Your task to perform on an android device: Search for 24"x36" picture frame on Home Depot. Image 0: 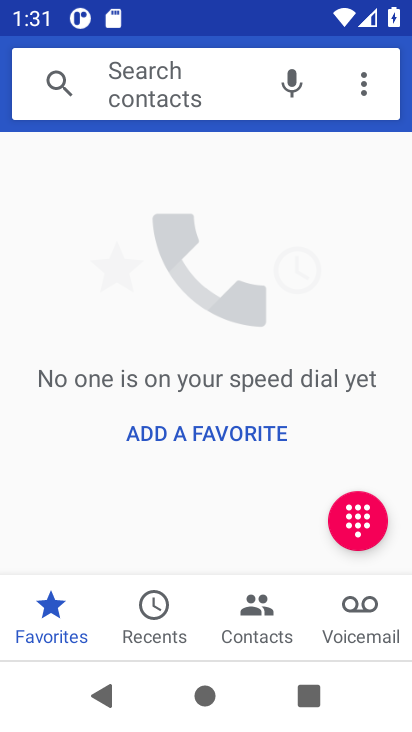
Step 0: press back button
Your task to perform on an android device: Search for 24"x36" picture frame on Home Depot. Image 1: 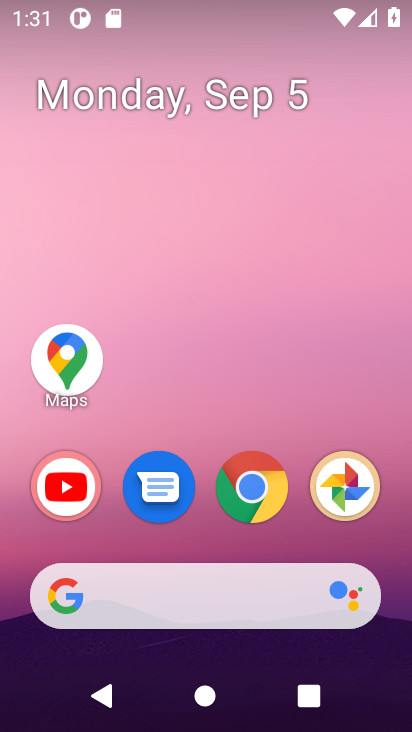
Step 1: click (129, 602)
Your task to perform on an android device: Search for 24"x36" picture frame on Home Depot. Image 2: 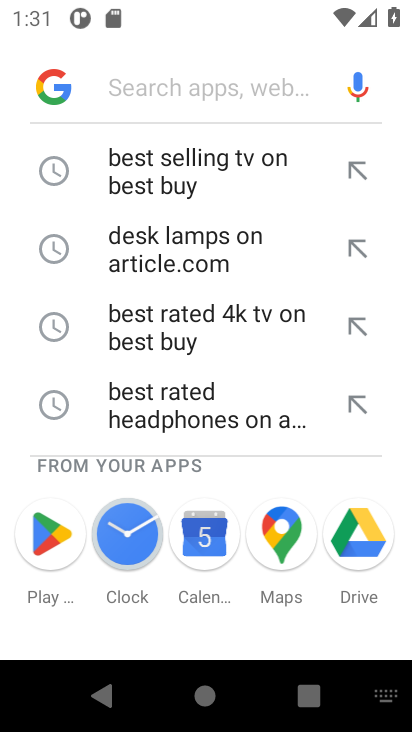
Step 2: press back button
Your task to perform on an android device: Search for 24"x36" picture frame on Home Depot. Image 3: 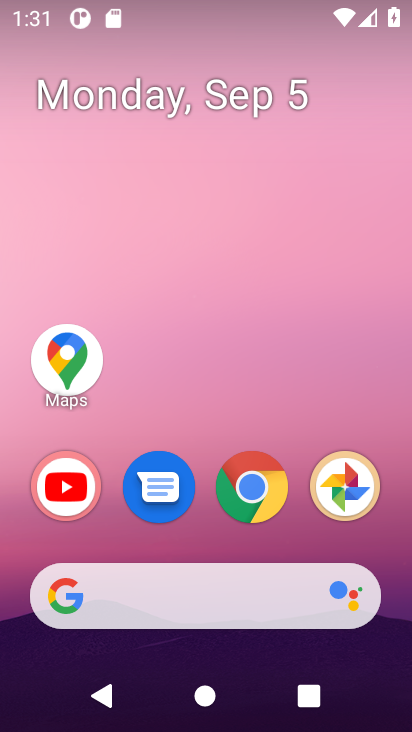
Step 3: click (238, 491)
Your task to perform on an android device: Search for 24"x36" picture frame on Home Depot. Image 4: 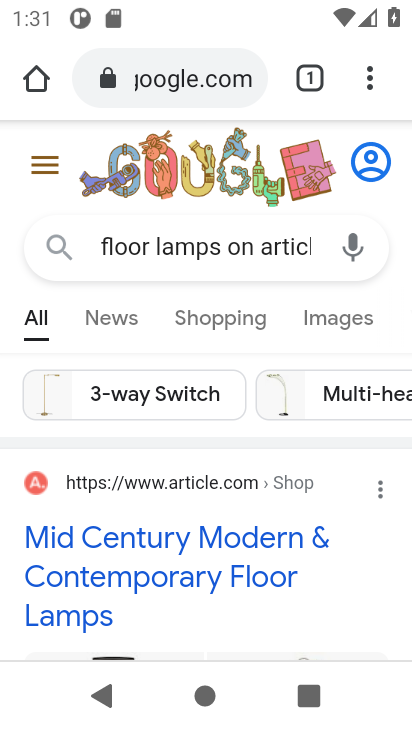
Step 4: click (176, 88)
Your task to perform on an android device: Search for 24"x36" picture frame on Home Depot. Image 5: 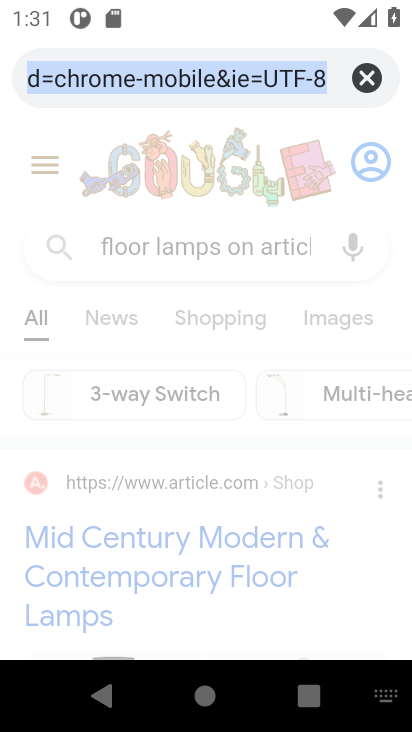
Step 5: click (368, 77)
Your task to perform on an android device: Search for 24"x36" picture frame on Home Depot. Image 6: 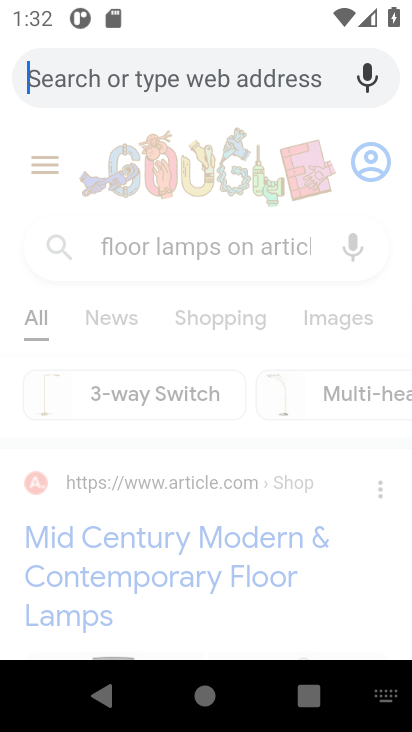
Step 6: type "24"x36" picture frame on Home Depot."
Your task to perform on an android device: Search for 24"x36" picture frame on Home Depot. Image 7: 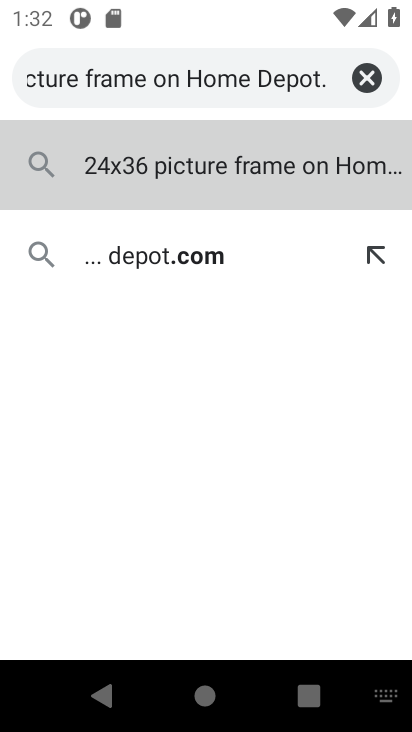
Step 7: click (203, 179)
Your task to perform on an android device: Search for 24"x36" picture frame on Home Depot. Image 8: 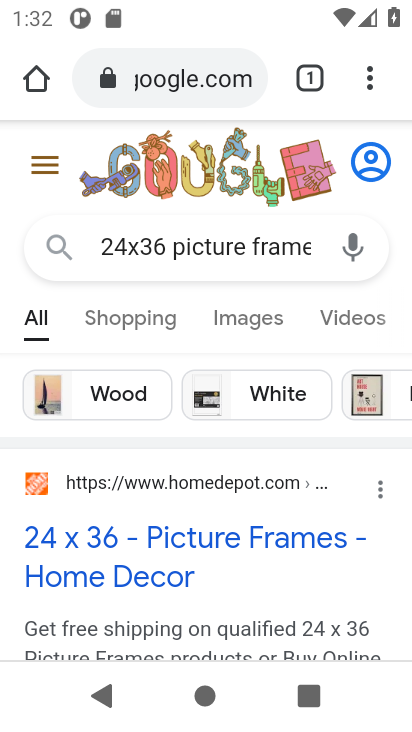
Step 8: task complete